Your task to perform on an android device: turn pop-ups off in chrome Image 0: 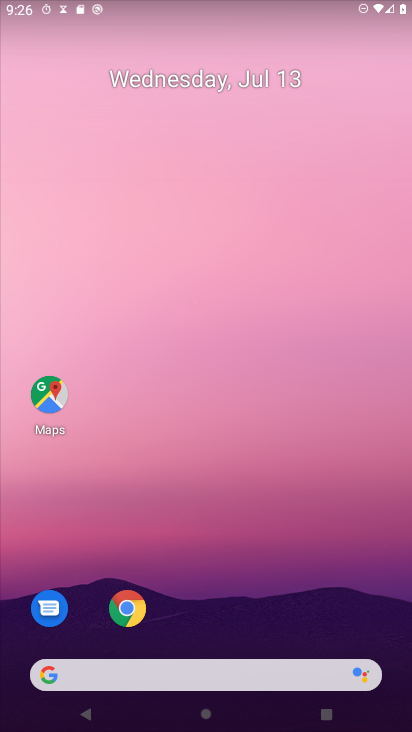
Step 0: drag from (206, 601) to (153, 265)
Your task to perform on an android device: turn pop-ups off in chrome Image 1: 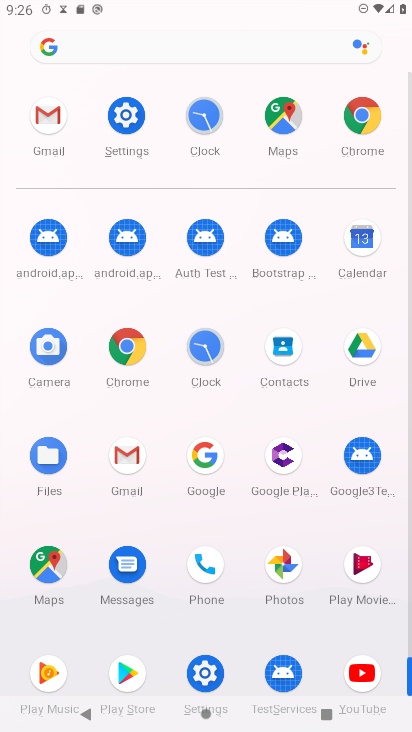
Step 1: click (366, 119)
Your task to perform on an android device: turn pop-ups off in chrome Image 2: 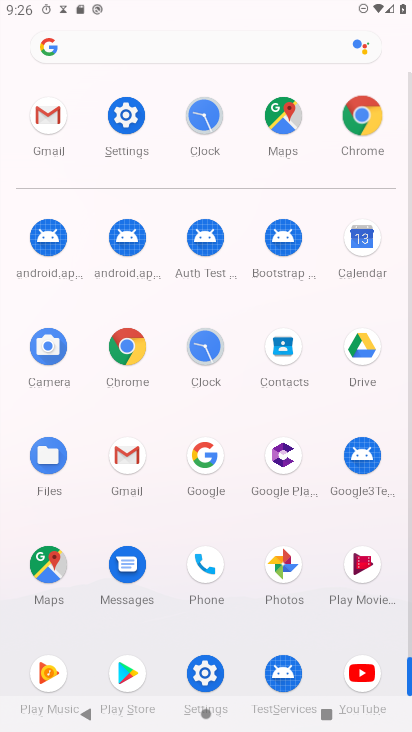
Step 2: click (366, 118)
Your task to perform on an android device: turn pop-ups off in chrome Image 3: 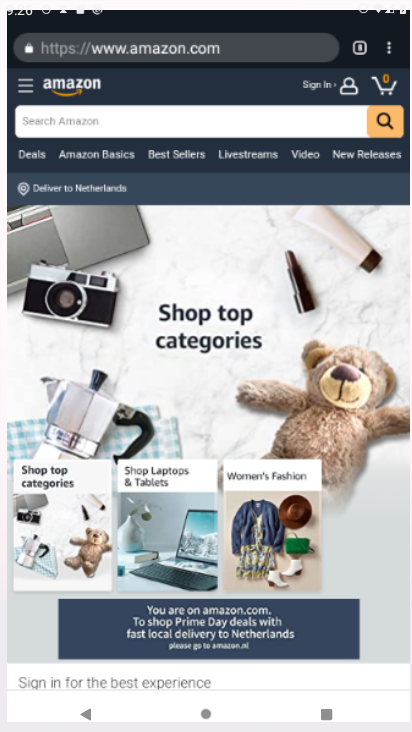
Step 3: click (366, 118)
Your task to perform on an android device: turn pop-ups off in chrome Image 4: 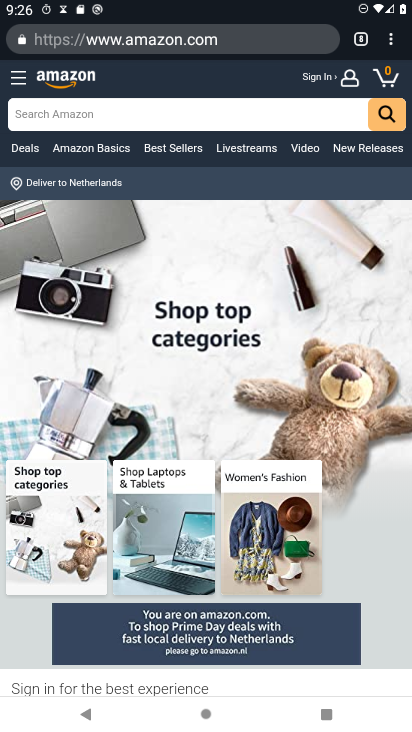
Step 4: drag from (389, 36) to (262, 470)
Your task to perform on an android device: turn pop-ups off in chrome Image 5: 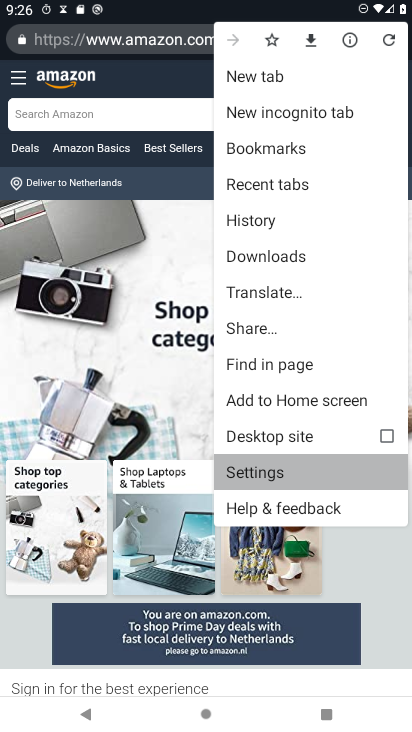
Step 5: click (264, 470)
Your task to perform on an android device: turn pop-ups off in chrome Image 6: 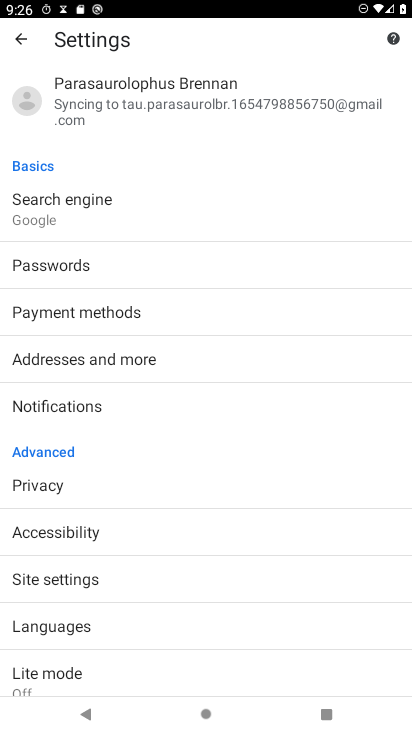
Step 6: drag from (76, 608) to (21, 234)
Your task to perform on an android device: turn pop-ups off in chrome Image 7: 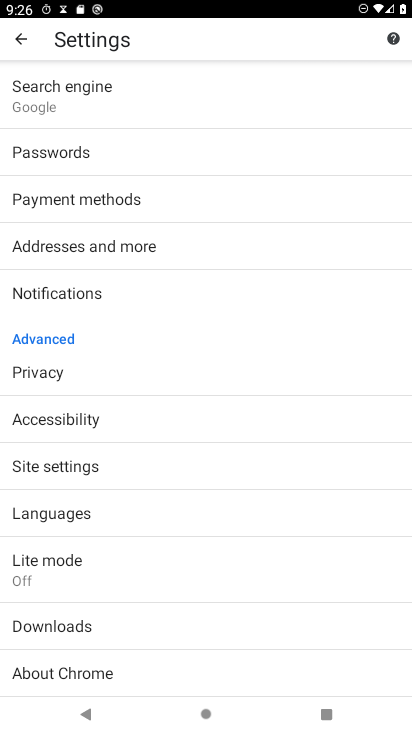
Step 7: click (43, 470)
Your task to perform on an android device: turn pop-ups off in chrome Image 8: 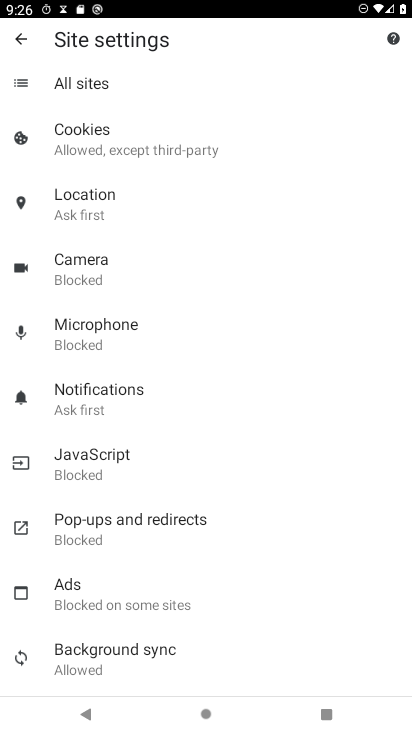
Step 8: click (90, 534)
Your task to perform on an android device: turn pop-ups off in chrome Image 9: 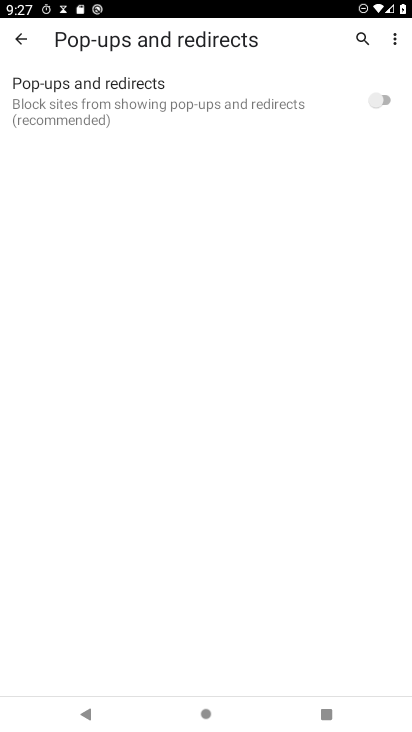
Step 9: task complete